Your task to perform on an android device: Find coffee shops on Maps Image 0: 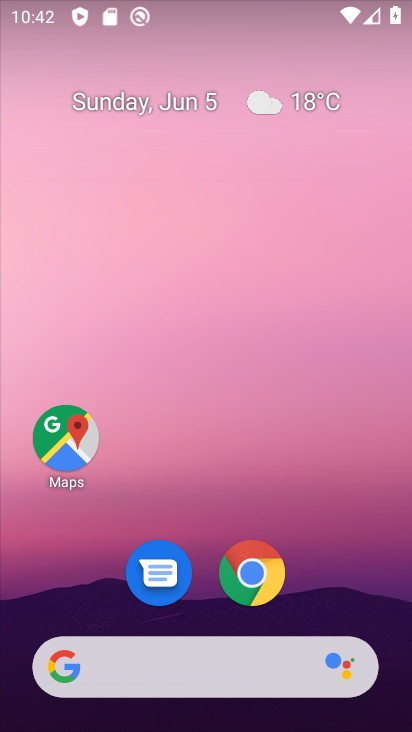
Step 0: click (64, 444)
Your task to perform on an android device: Find coffee shops on Maps Image 1: 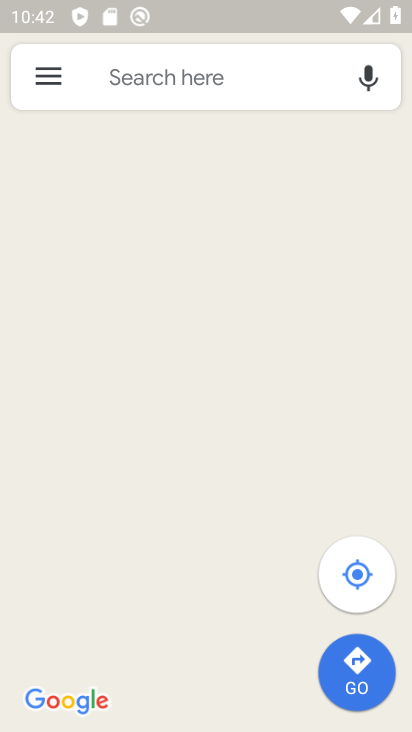
Step 1: click (143, 91)
Your task to perform on an android device: Find coffee shops on Maps Image 2: 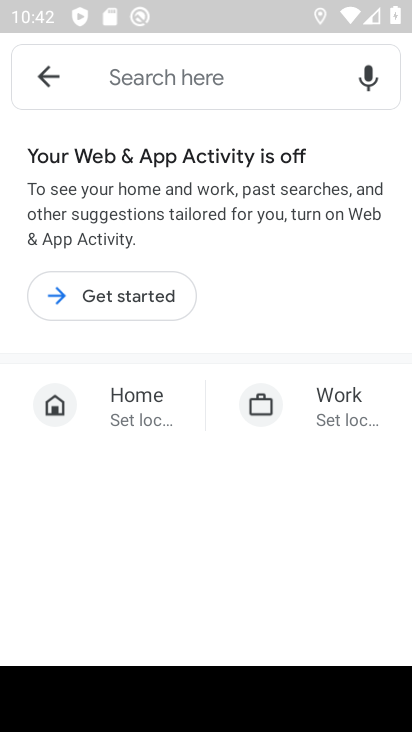
Step 2: type "coffee shops"
Your task to perform on an android device: Find coffee shops on Maps Image 3: 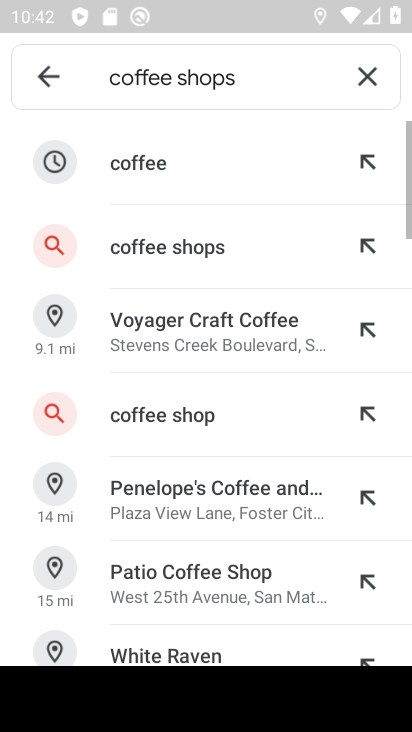
Step 3: click (193, 241)
Your task to perform on an android device: Find coffee shops on Maps Image 4: 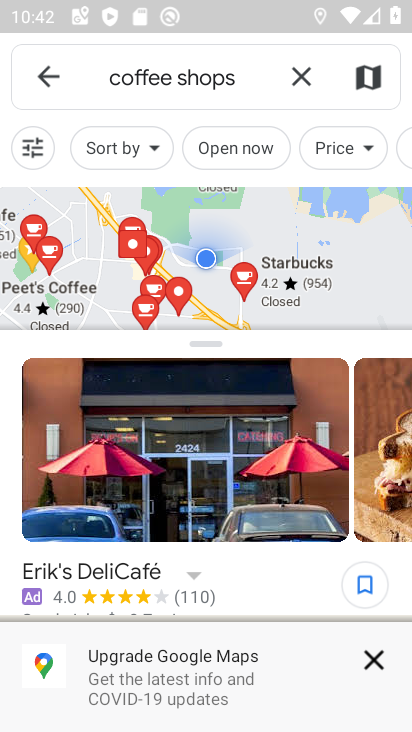
Step 4: task complete